Your task to perform on an android device: Go to Yahoo.com Image 0: 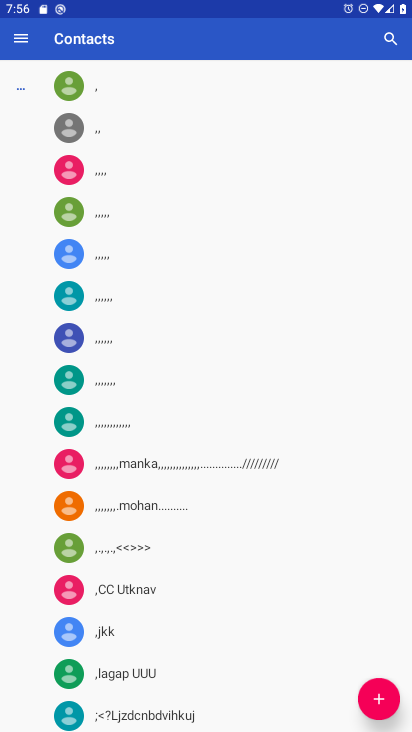
Step 0: drag from (165, 654) to (173, 302)
Your task to perform on an android device: Go to Yahoo.com Image 1: 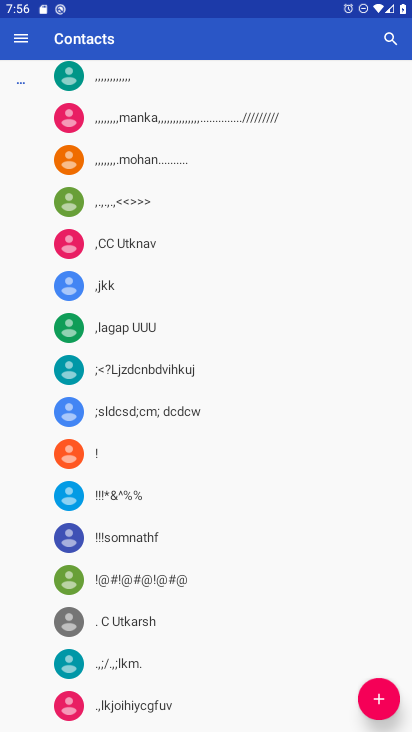
Step 1: press home button
Your task to perform on an android device: Go to Yahoo.com Image 2: 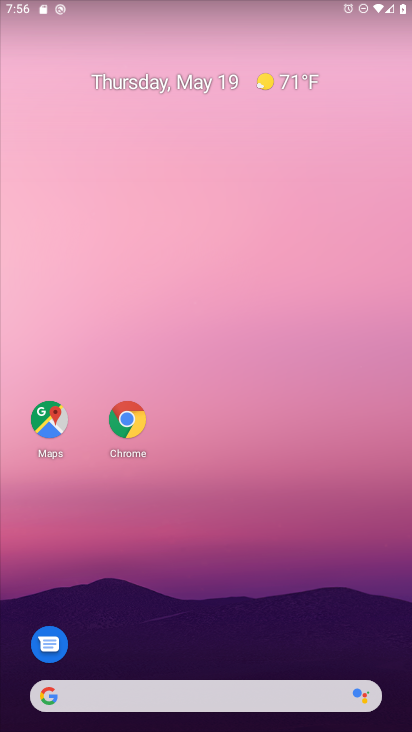
Step 2: drag from (146, 680) to (172, 275)
Your task to perform on an android device: Go to Yahoo.com Image 3: 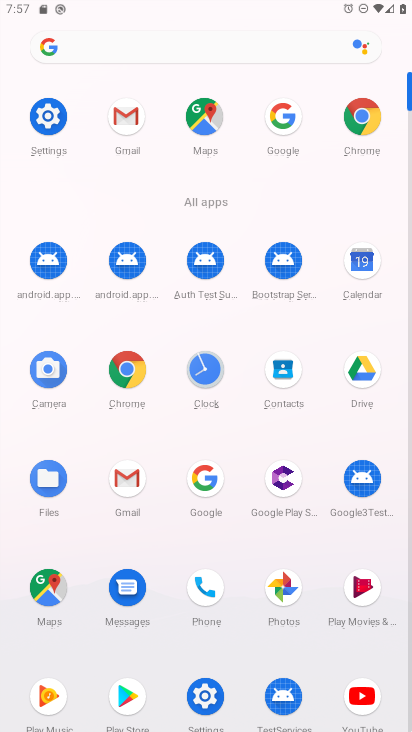
Step 3: click (222, 474)
Your task to perform on an android device: Go to Yahoo.com Image 4: 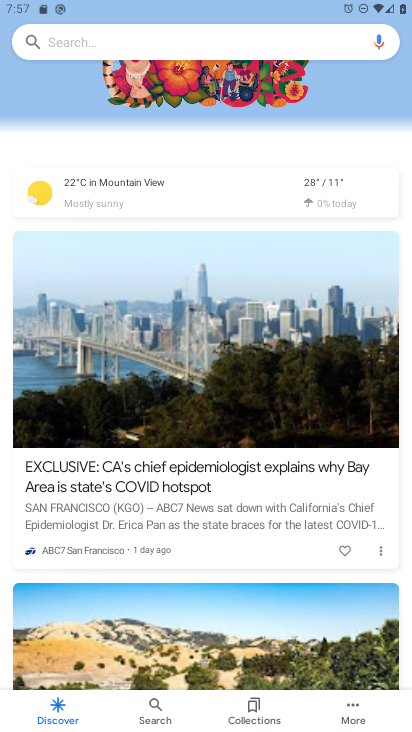
Step 4: click (118, 51)
Your task to perform on an android device: Go to Yahoo.com Image 5: 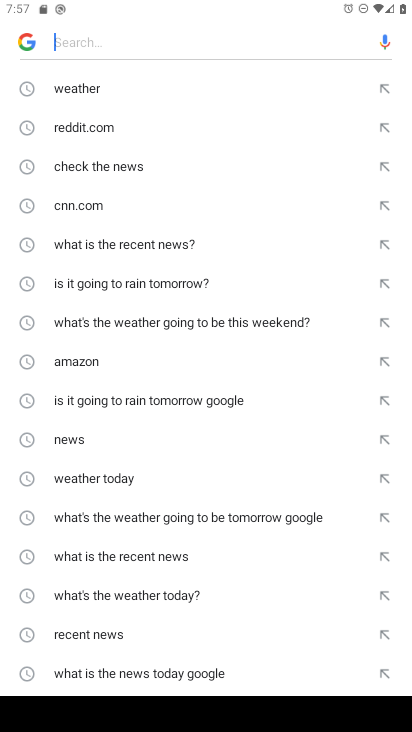
Step 5: drag from (76, 528) to (109, 209)
Your task to perform on an android device: Go to Yahoo.com Image 6: 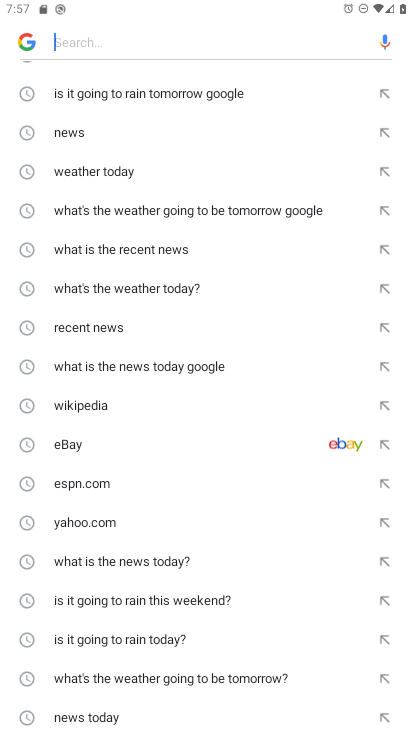
Step 6: click (72, 527)
Your task to perform on an android device: Go to Yahoo.com Image 7: 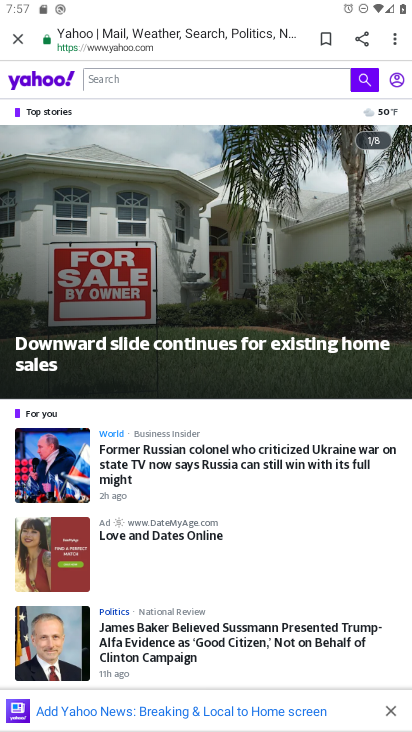
Step 7: task complete